Your task to perform on an android device: install app "ColorNote Notepad Notes" Image 0: 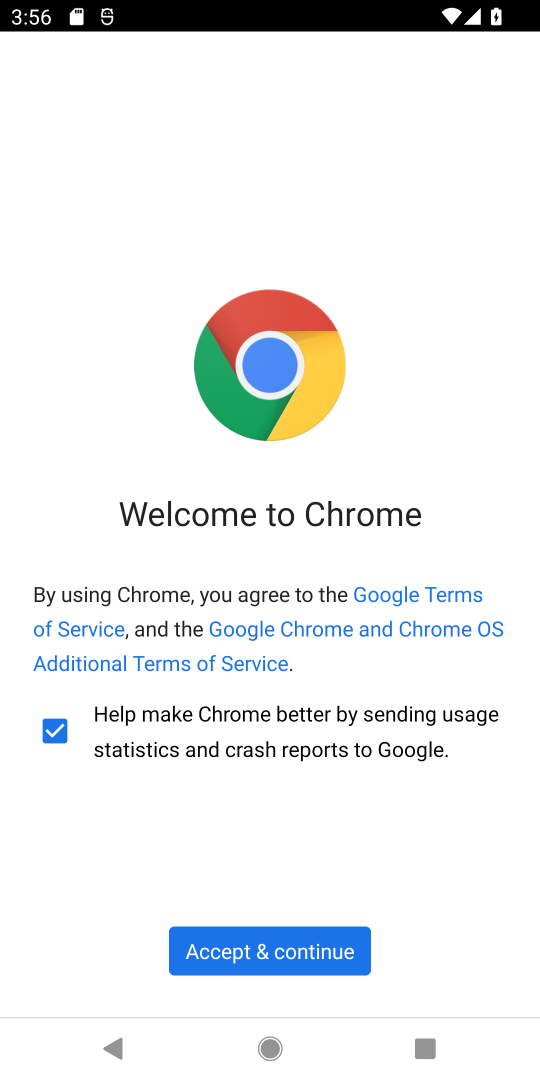
Step 0: press home button
Your task to perform on an android device: install app "ColorNote Notepad Notes" Image 1: 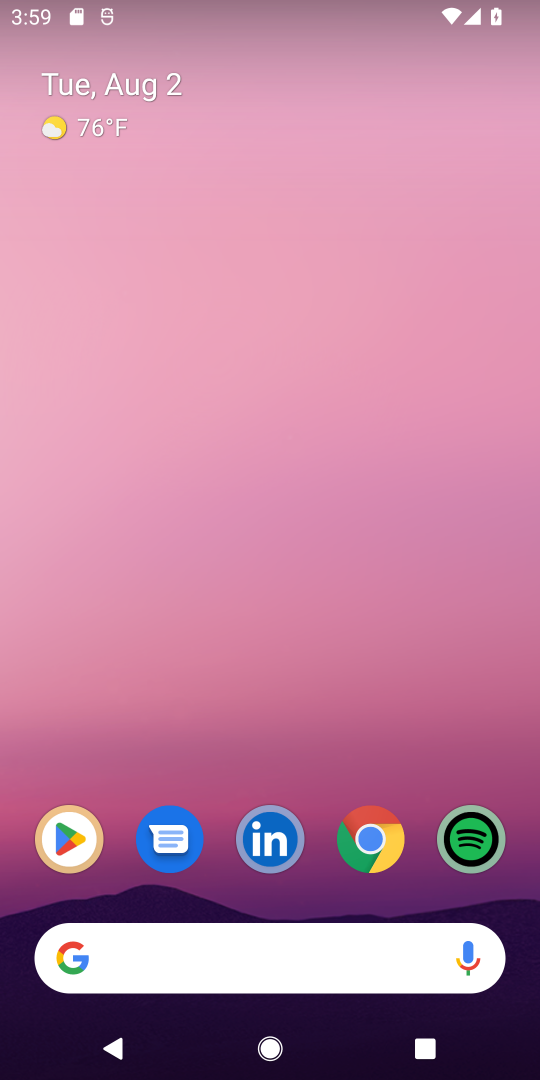
Step 1: task complete